Your task to perform on an android device: Go to network settings Image 0: 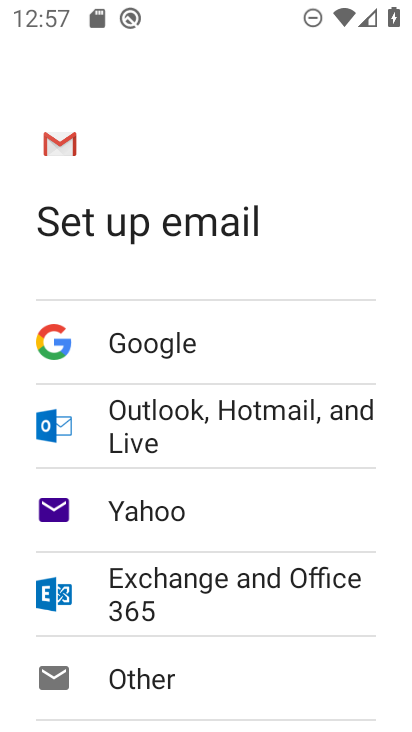
Step 0: press home button
Your task to perform on an android device: Go to network settings Image 1: 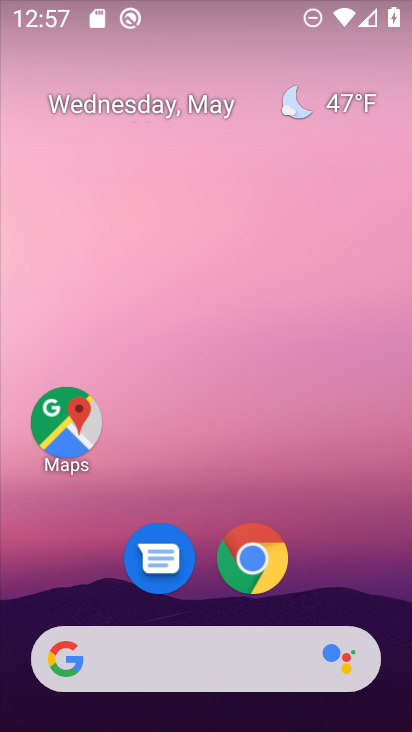
Step 1: drag from (221, 597) to (231, 1)
Your task to perform on an android device: Go to network settings Image 2: 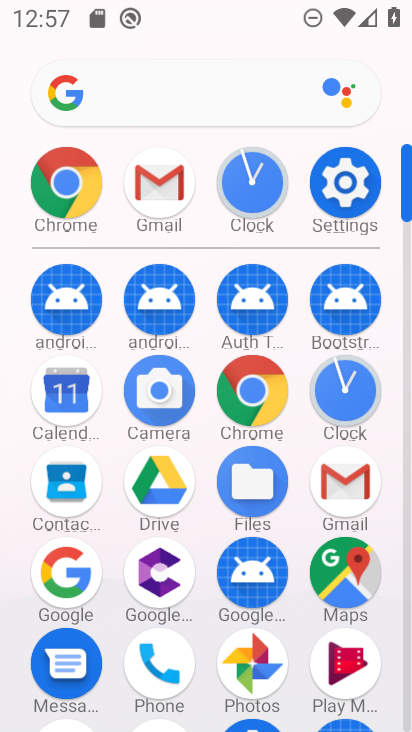
Step 2: click (329, 182)
Your task to perform on an android device: Go to network settings Image 3: 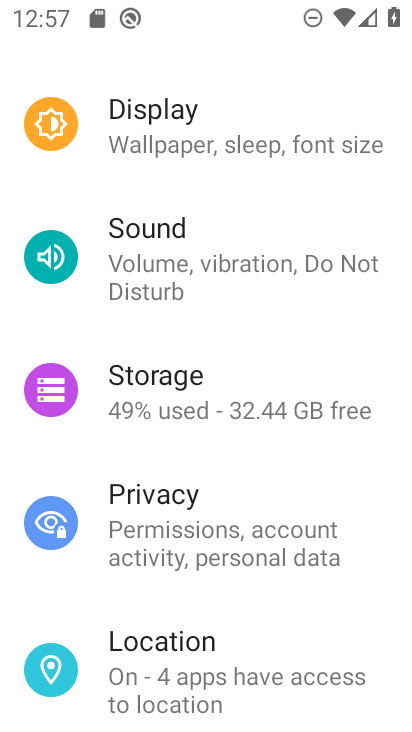
Step 3: drag from (222, 253) to (97, 721)
Your task to perform on an android device: Go to network settings Image 4: 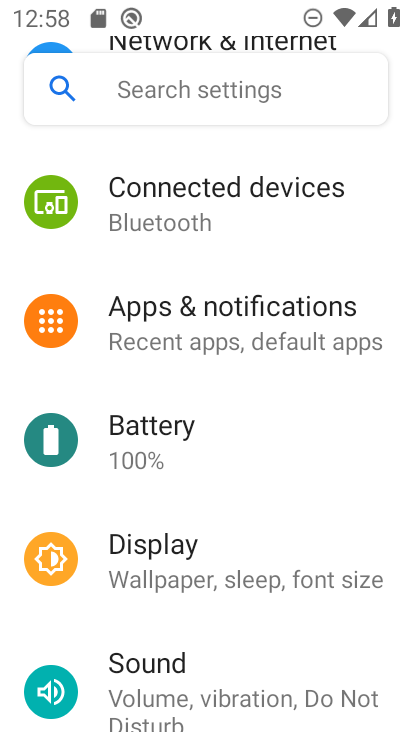
Step 4: drag from (240, 228) to (245, 635)
Your task to perform on an android device: Go to network settings Image 5: 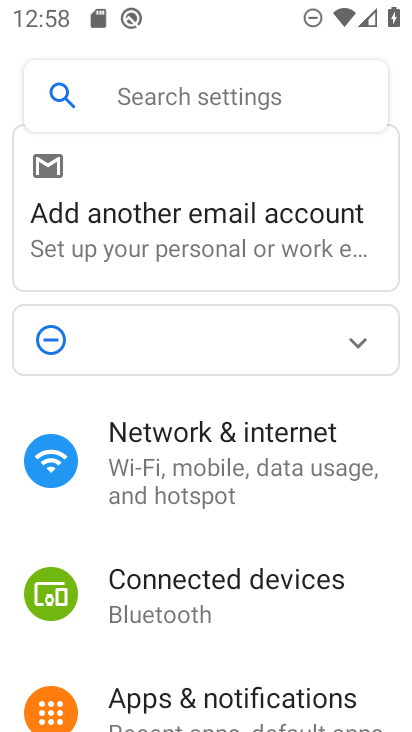
Step 5: click (194, 461)
Your task to perform on an android device: Go to network settings Image 6: 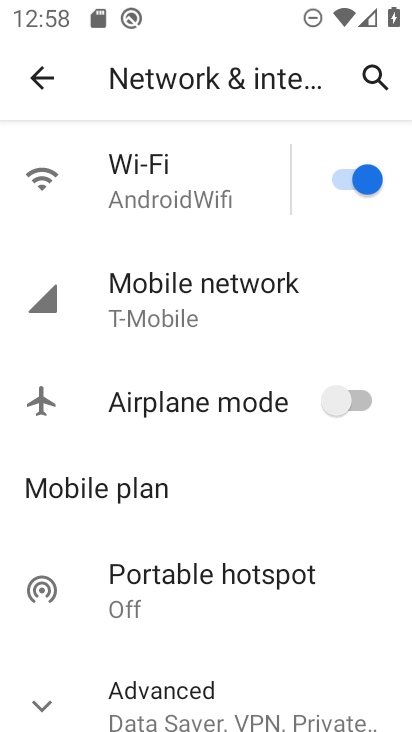
Step 6: task complete